Your task to perform on an android device: set the stopwatch Image 0: 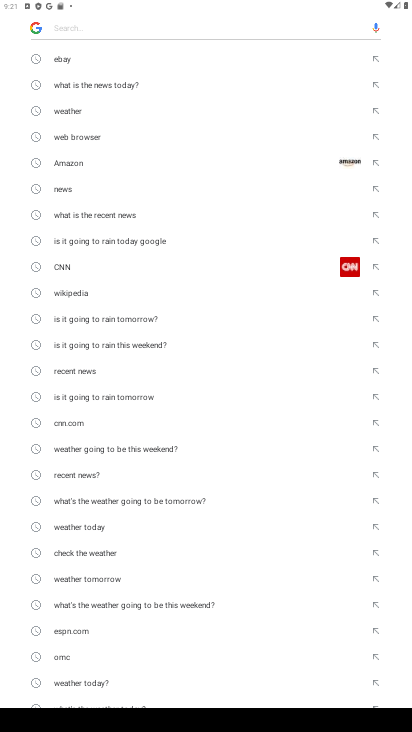
Step 0: press home button
Your task to perform on an android device: set the stopwatch Image 1: 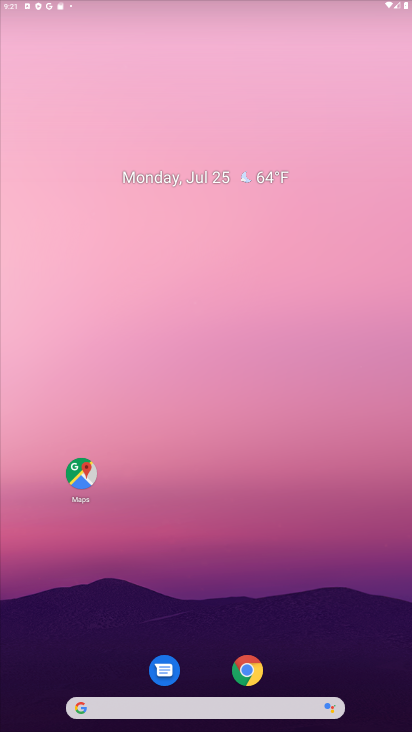
Step 1: drag from (387, 673) to (257, 36)
Your task to perform on an android device: set the stopwatch Image 2: 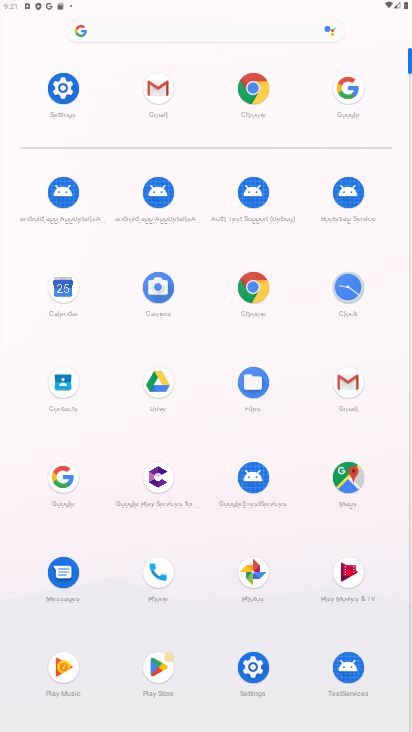
Step 2: click (338, 290)
Your task to perform on an android device: set the stopwatch Image 3: 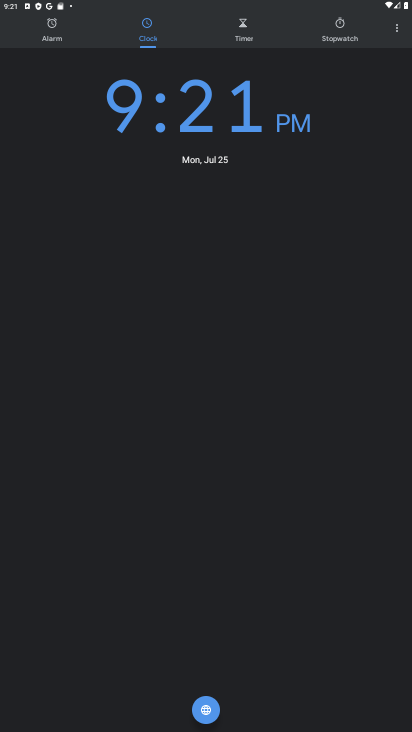
Step 3: click (337, 39)
Your task to perform on an android device: set the stopwatch Image 4: 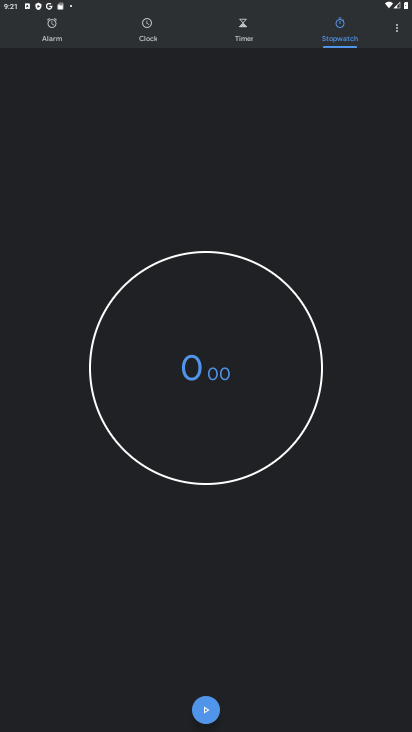
Step 4: click (206, 719)
Your task to perform on an android device: set the stopwatch Image 5: 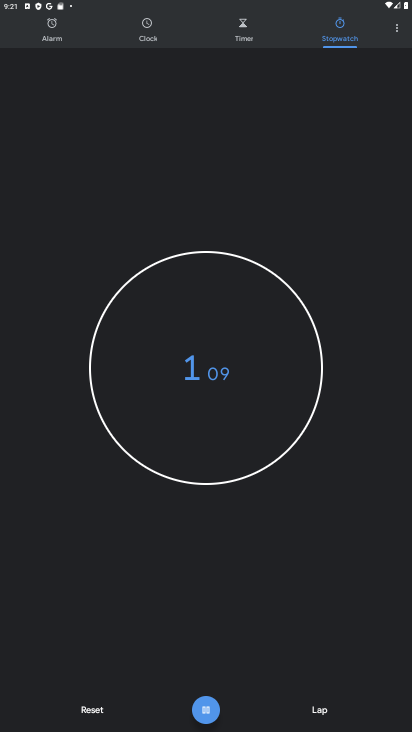
Step 5: click (194, 716)
Your task to perform on an android device: set the stopwatch Image 6: 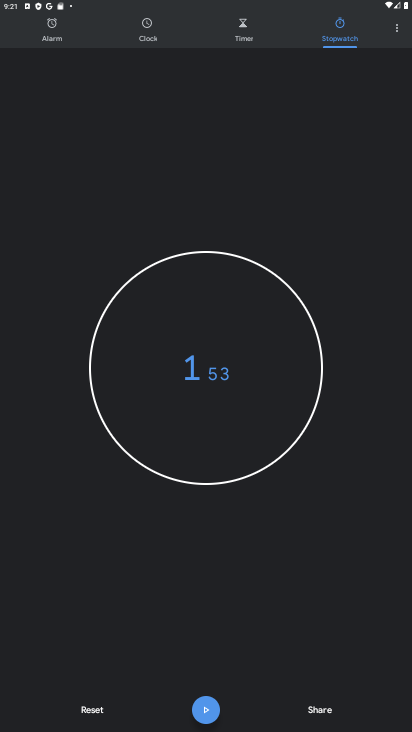
Step 6: task complete